Your task to perform on an android device: install app "Chime – Mobile Banking" Image 0: 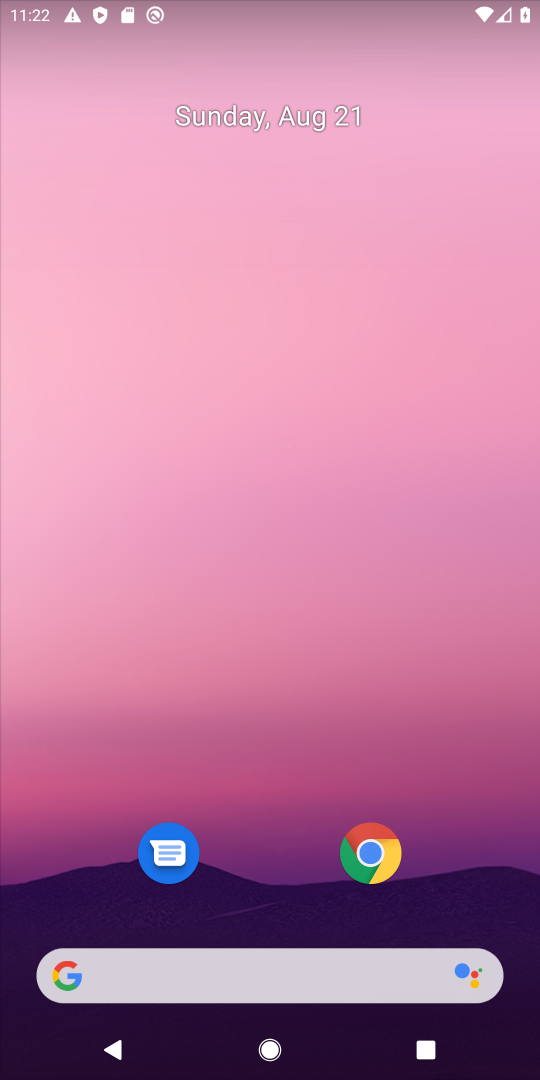
Step 0: drag from (272, 1000) to (252, 426)
Your task to perform on an android device: install app "Chime – Mobile Banking" Image 1: 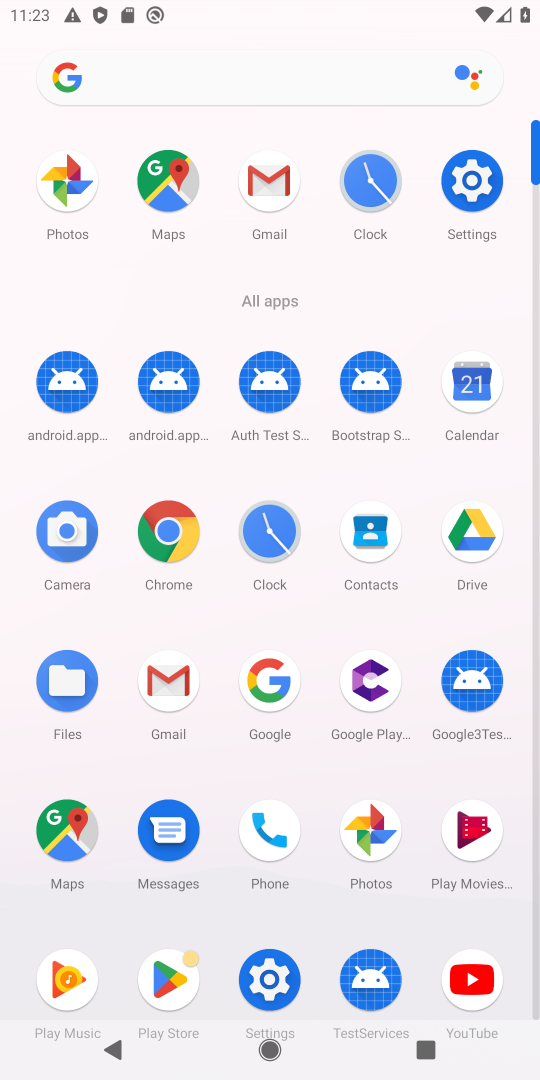
Step 1: click (179, 959)
Your task to perform on an android device: install app "Chime – Mobile Banking" Image 2: 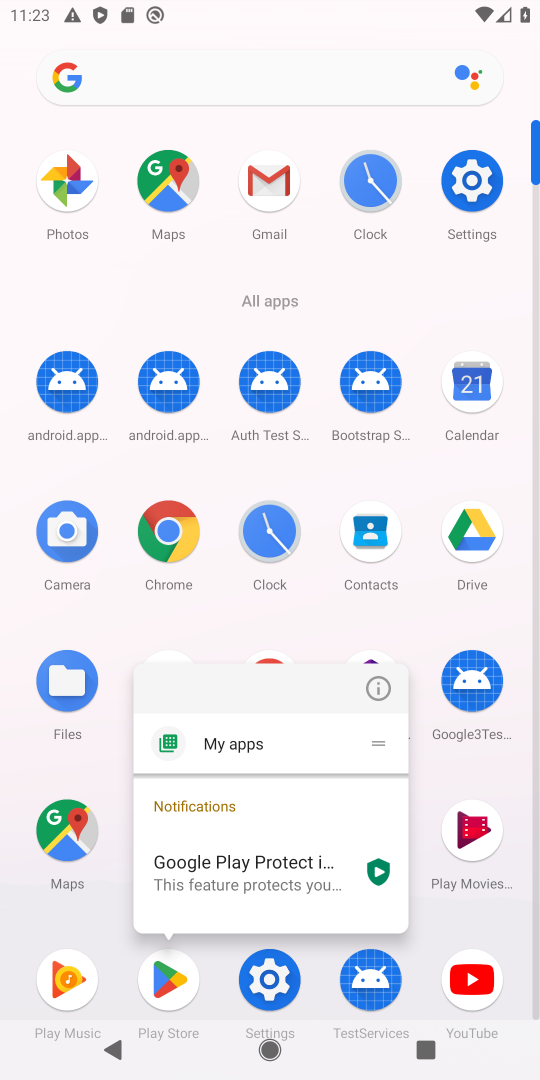
Step 2: click (165, 976)
Your task to perform on an android device: install app "Chime – Mobile Banking" Image 3: 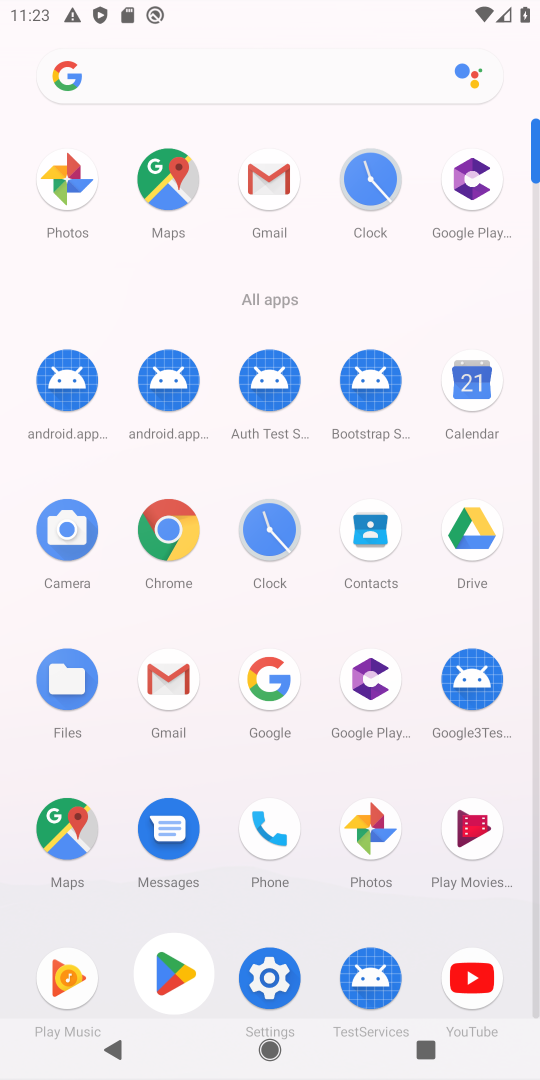
Step 3: click (165, 976)
Your task to perform on an android device: install app "Chime – Mobile Banking" Image 4: 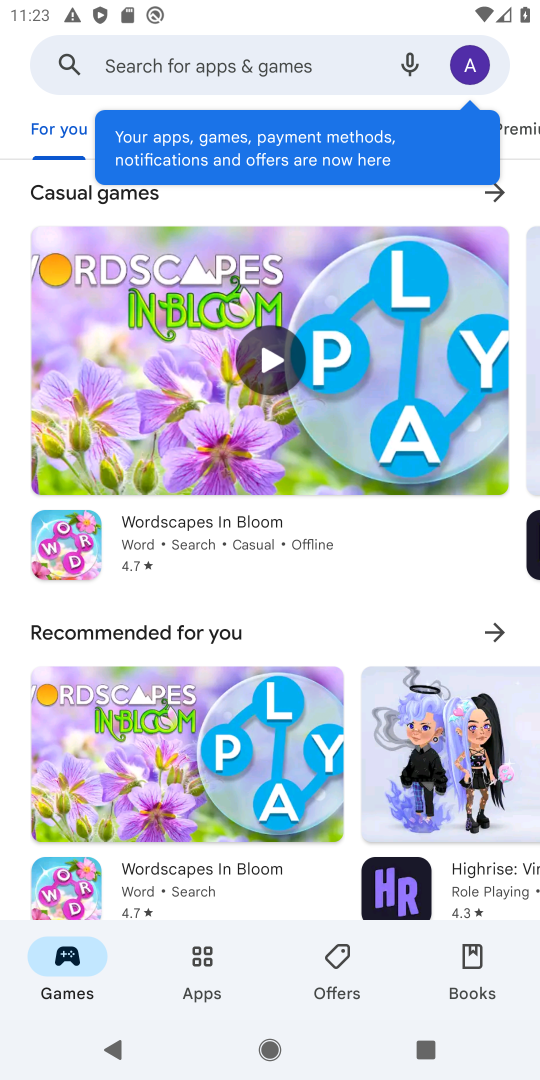
Step 4: click (196, 45)
Your task to perform on an android device: install app "Chime – Mobile Banking" Image 5: 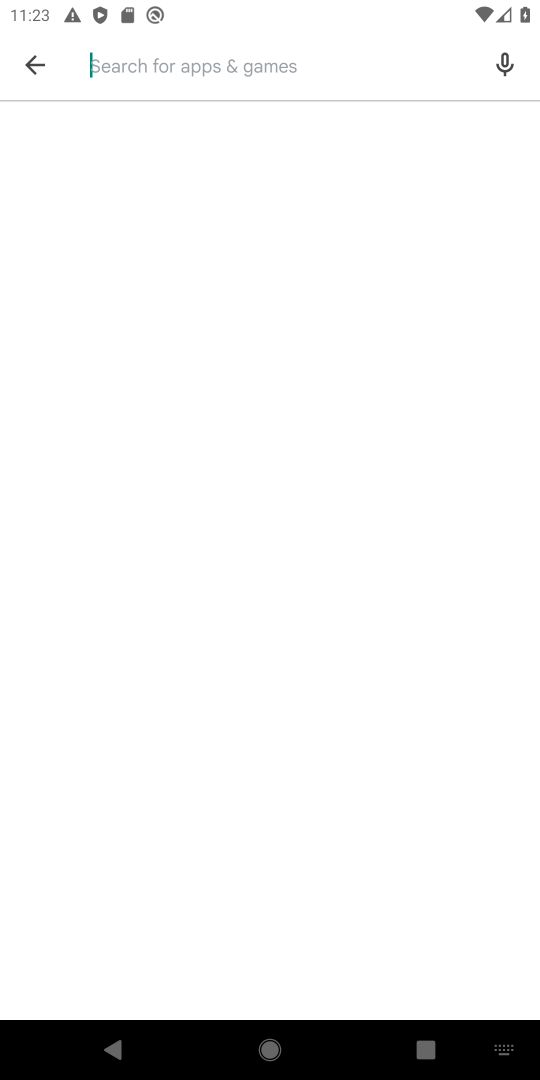
Step 5: type "mobile banking "
Your task to perform on an android device: install app "Chime – Mobile Banking" Image 6: 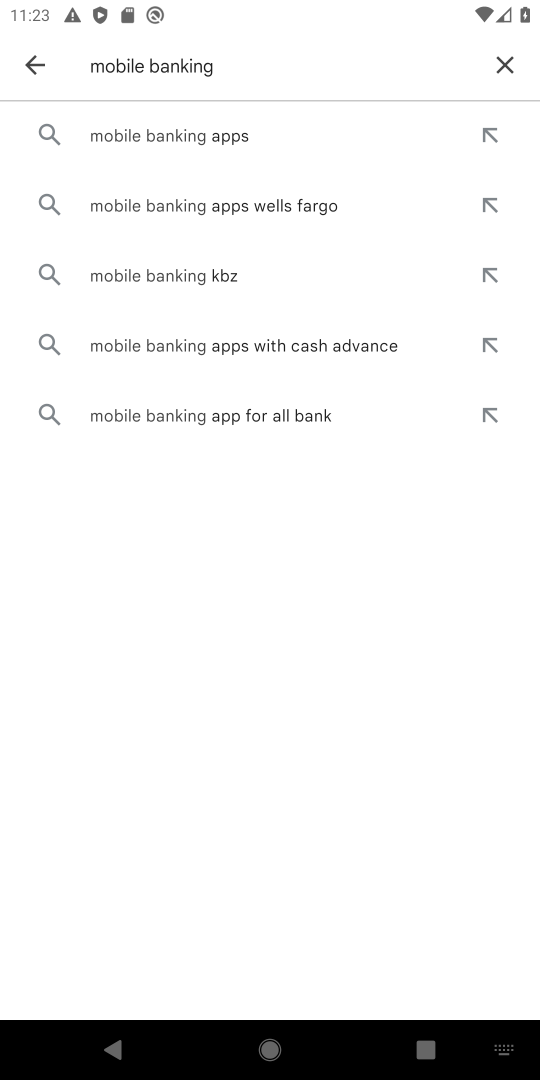
Step 6: click (183, 141)
Your task to perform on an android device: install app "Chime – Mobile Banking" Image 7: 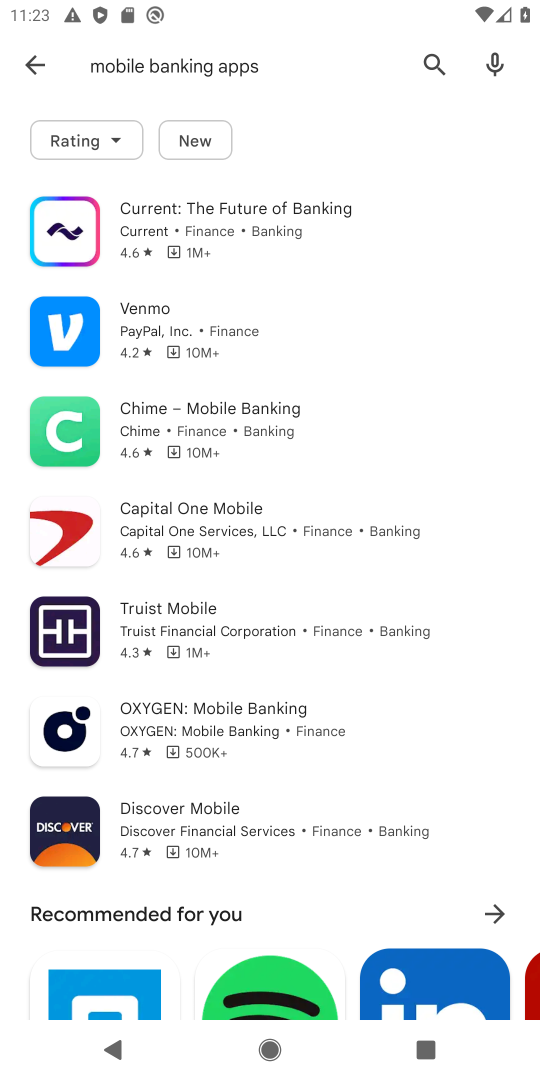
Step 7: click (219, 426)
Your task to perform on an android device: install app "Chime – Mobile Banking" Image 8: 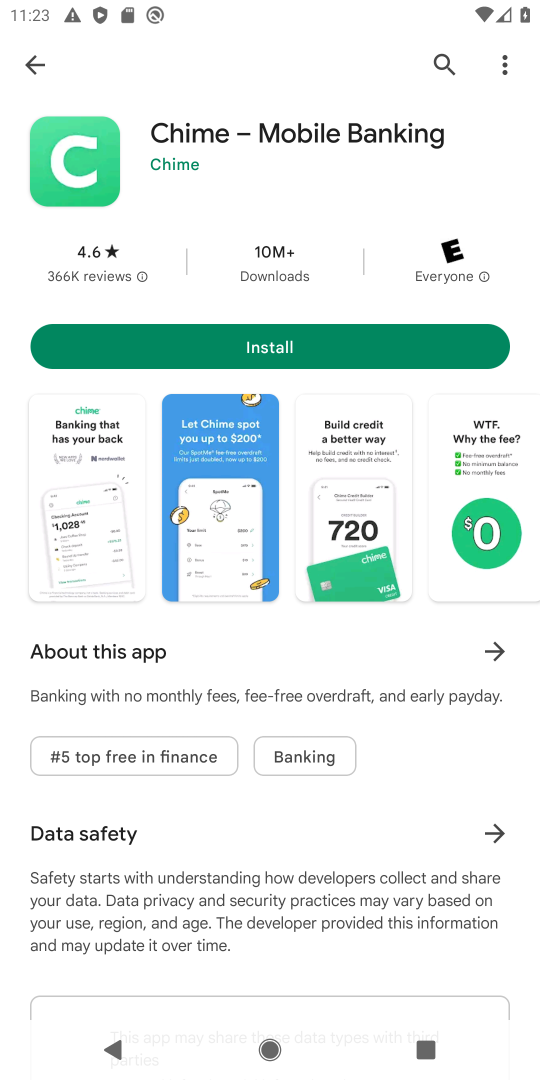
Step 8: click (280, 351)
Your task to perform on an android device: install app "Chime – Mobile Banking" Image 9: 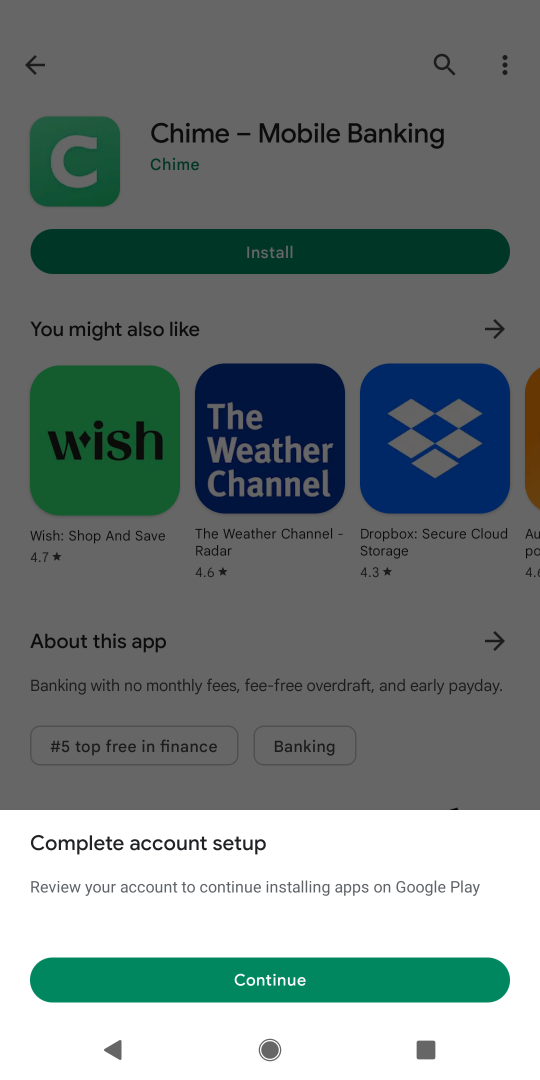
Step 9: task complete